Your task to perform on an android device: choose inbox layout in the gmail app Image 0: 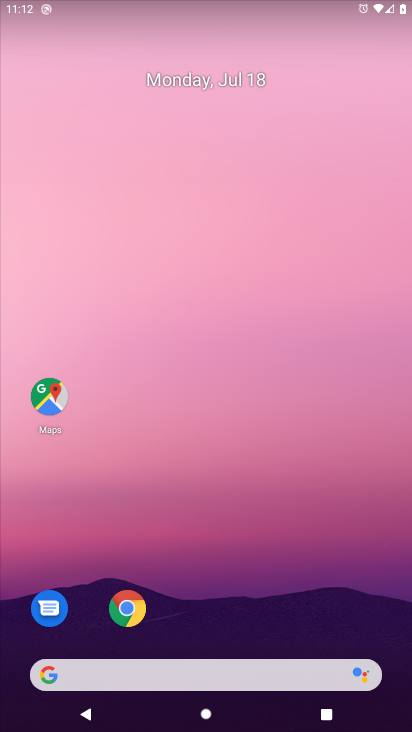
Step 0: drag from (27, 686) to (277, 88)
Your task to perform on an android device: choose inbox layout in the gmail app Image 1: 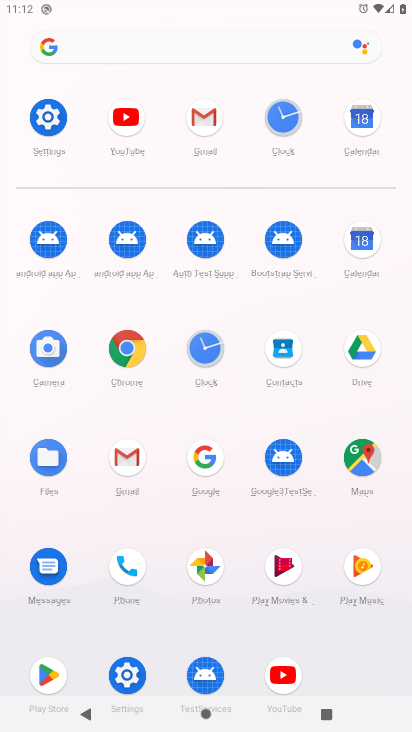
Step 1: click (120, 469)
Your task to perform on an android device: choose inbox layout in the gmail app Image 2: 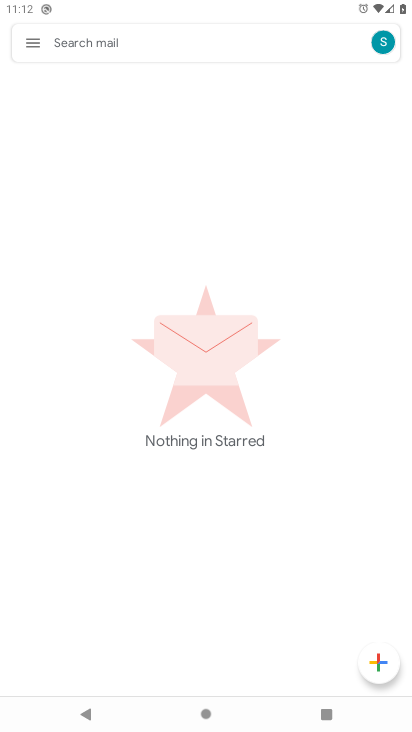
Step 2: click (31, 42)
Your task to perform on an android device: choose inbox layout in the gmail app Image 3: 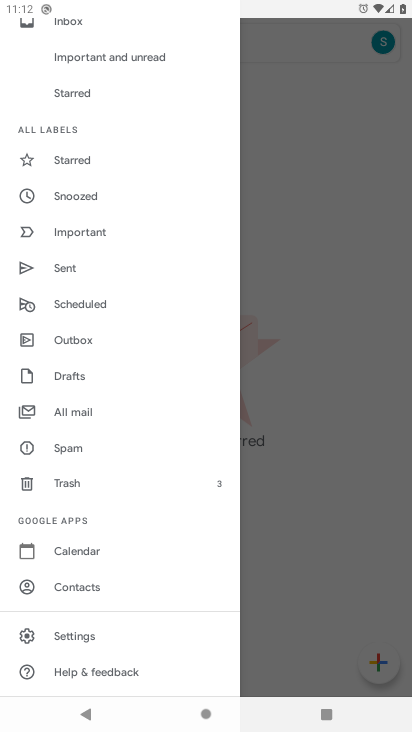
Step 3: click (80, 23)
Your task to perform on an android device: choose inbox layout in the gmail app Image 4: 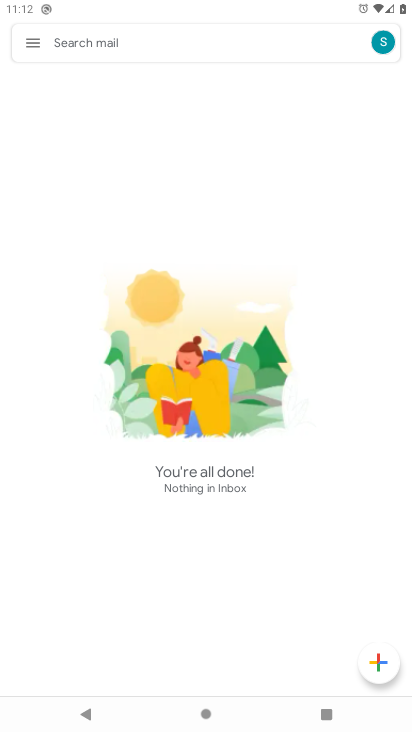
Step 4: click (32, 45)
Your task to perform on an android device: choose inbox layout in the gmail app Image 5: 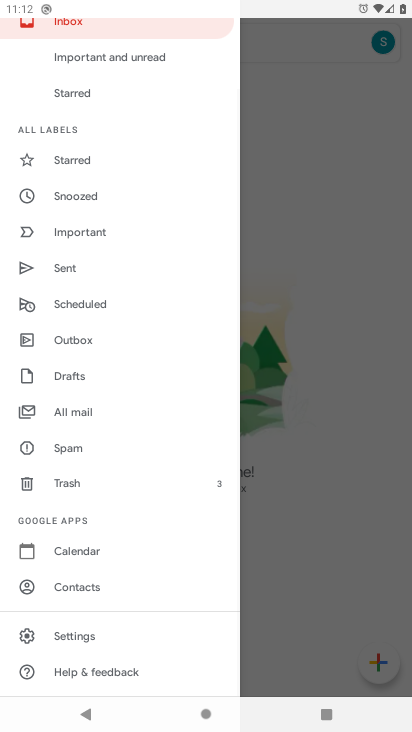
Step 5: click (78, 640)
Your task to perform on an android device: choose inbox layout in the gmail app Image 6: 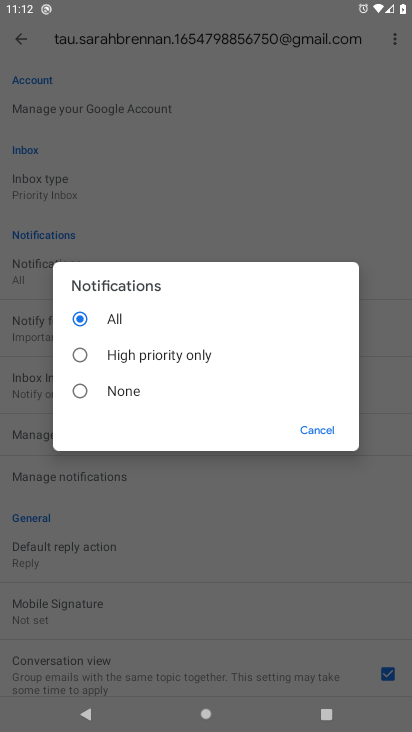
Step 6: click (341, 429)
Your task to perform on an android device: choose inbox layout in the gmail app Image 7: 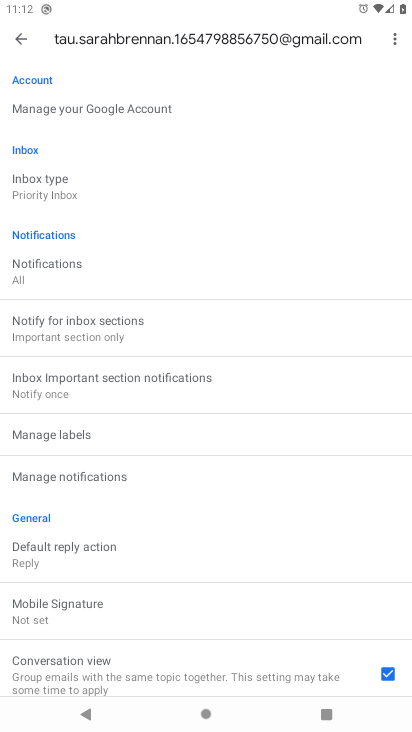
Step 7: task complete